Your task to perform on an android device: open chrome and create a bookmark for the current page Image 0: 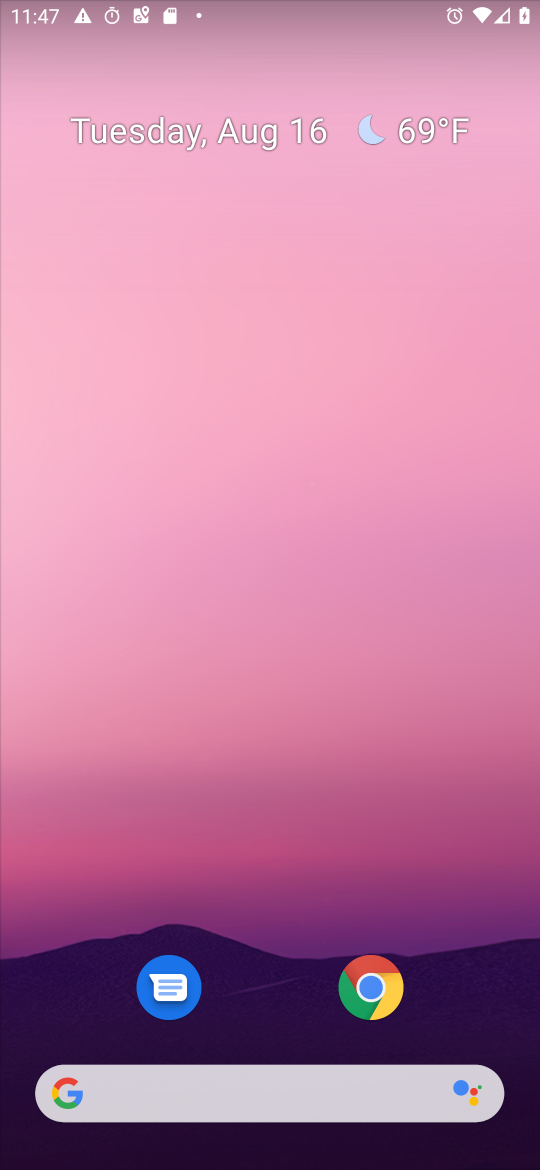
Step 0: click (397, 994)
Your task to perform on an android device: open chrome and create a bookmark for the current page Image 1: 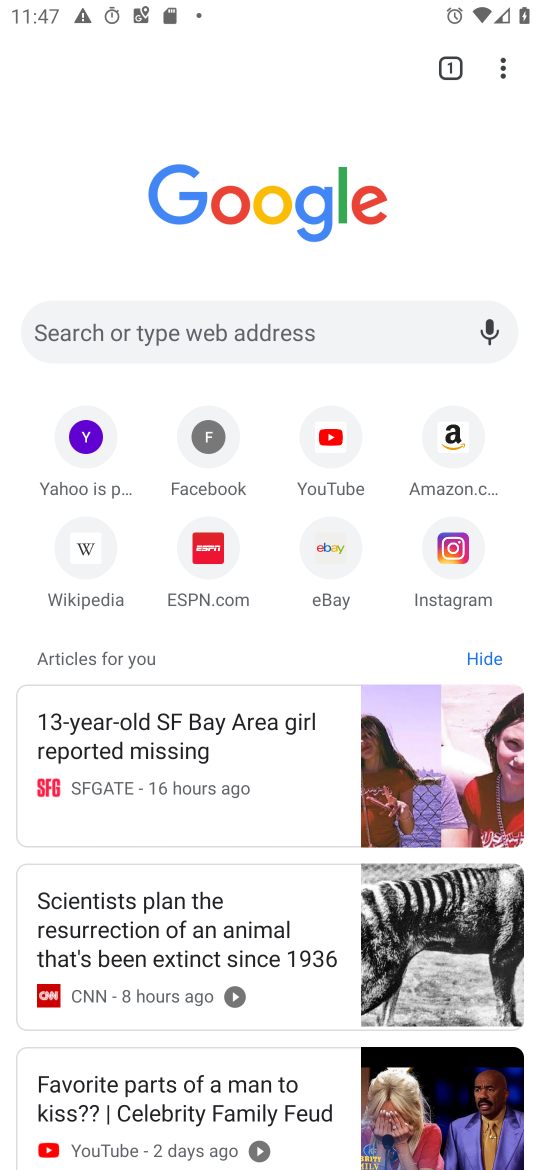
Step 1: click (506, 72)
Your task to perform on an android device: open chrome and create a bookmark for the current page Image 2: 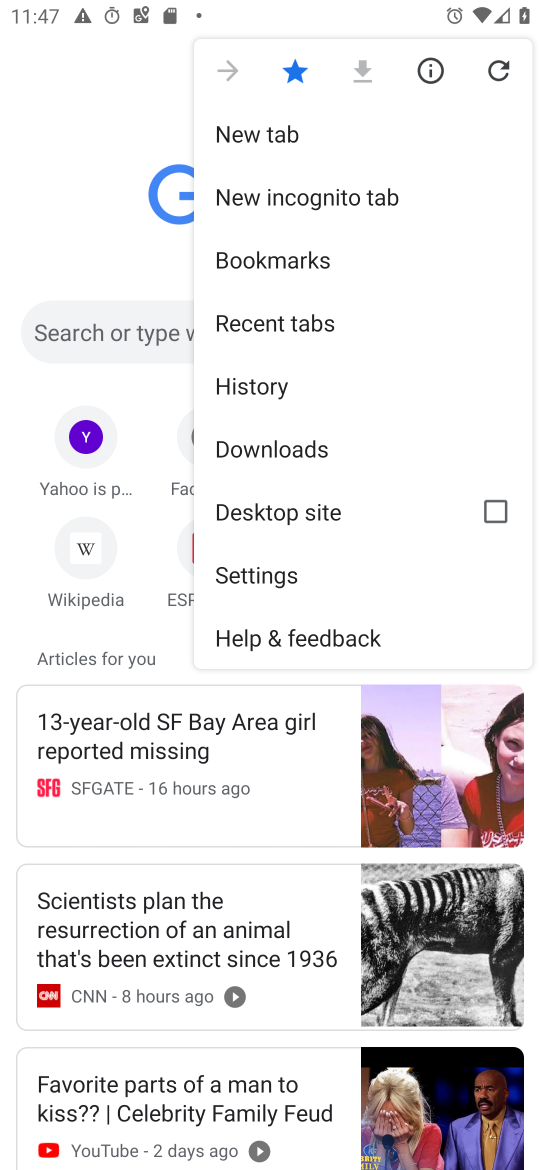
Step 2: click (288, 75)
Your task to perform on an android device: open chrome and create a bookmark for the current page Image 3: 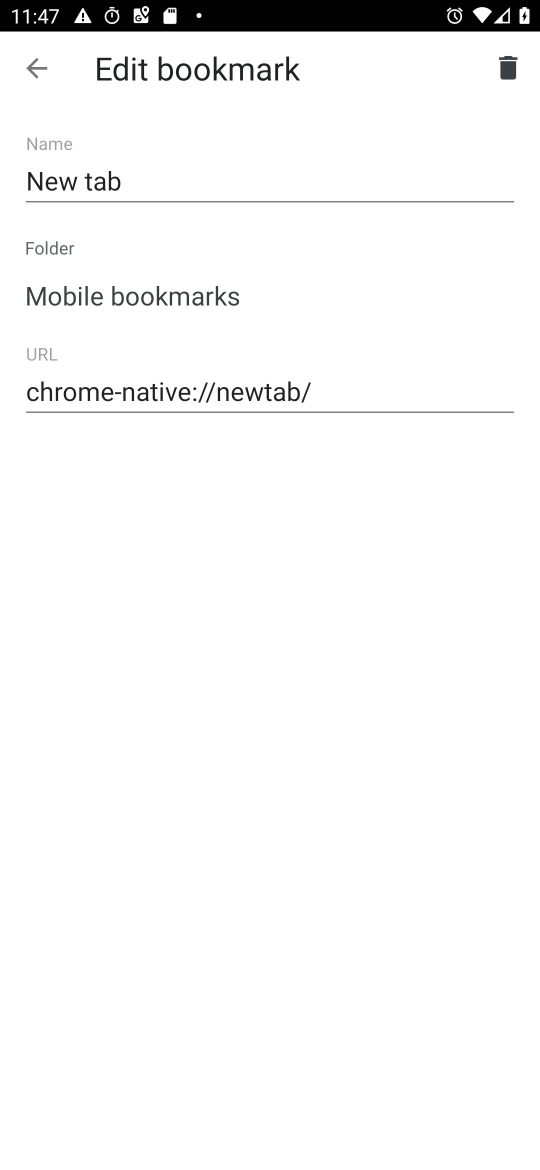
Step 3: task complete